Your task to perform on an android device: Open the calendar and show me this week's events? Image 0: 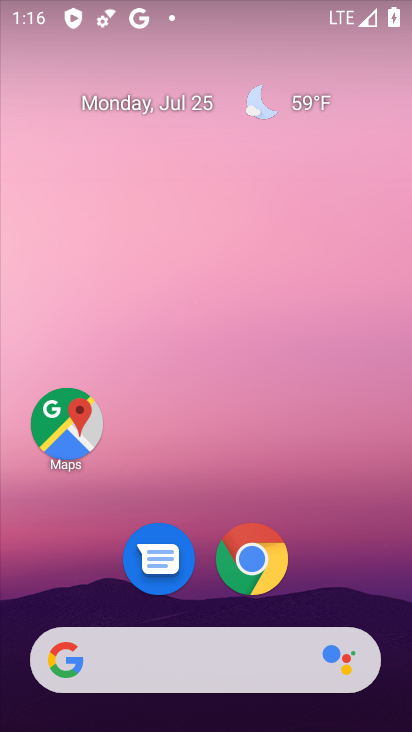
Step 0: drag from (85, 569) to (276, 8)
Your task to perform on an android device: Open the calendar and show me this week's events? Image 1: 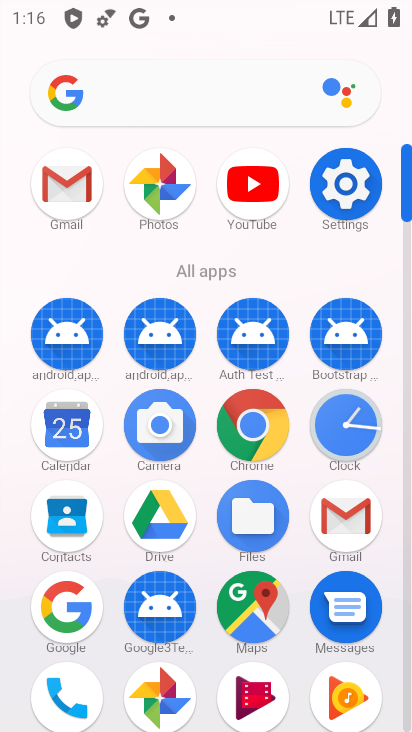
Step 1: click (70, 434)
Your task to perform on an android device: Open the calendar and show me this week's events? Image 2: 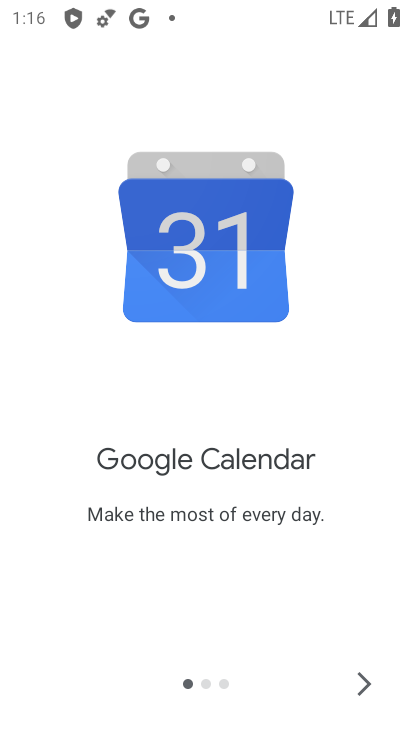
Step 2: click (347, 675)
Your task to perform on an android device: Open the calendar and show me this week's events? Image 3: 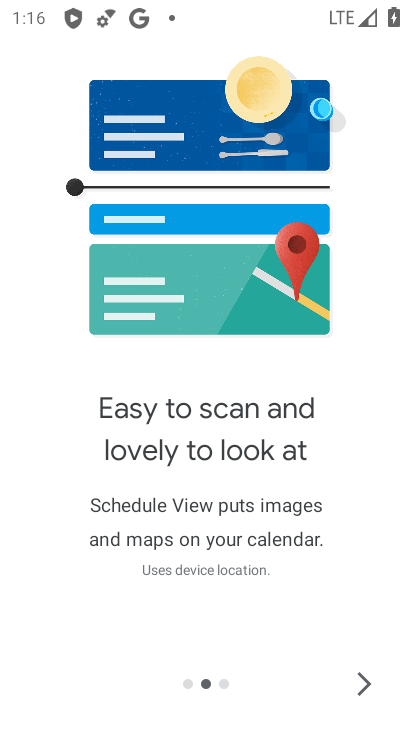
Step 3: click (355, 680)
Your task to perform on an android device: Open the calendar and show me this week's events? Image 4: 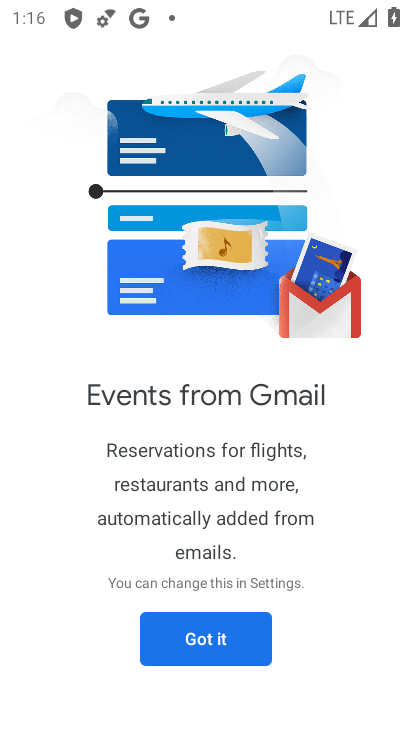
Step 4: click (181, 639)
Your task to perform on an android device: Open the calendar and show me this week's events? Image 5: 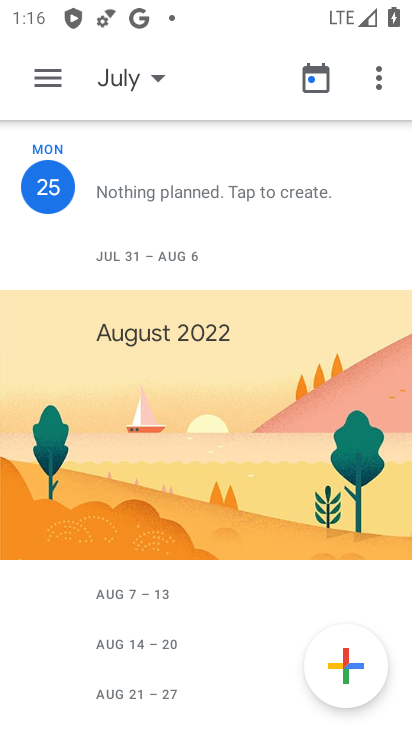
Step 5: task complete